Your task to perform on an android device: Open the map Image 0: 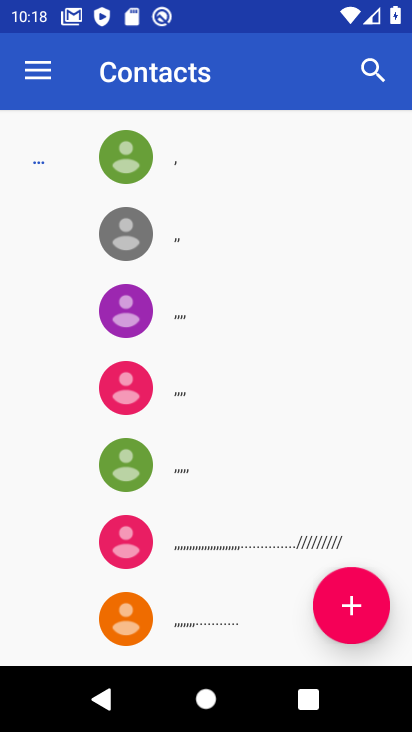
Step 0: press home button
Your task to perform on an android device: Open the map Image 1: 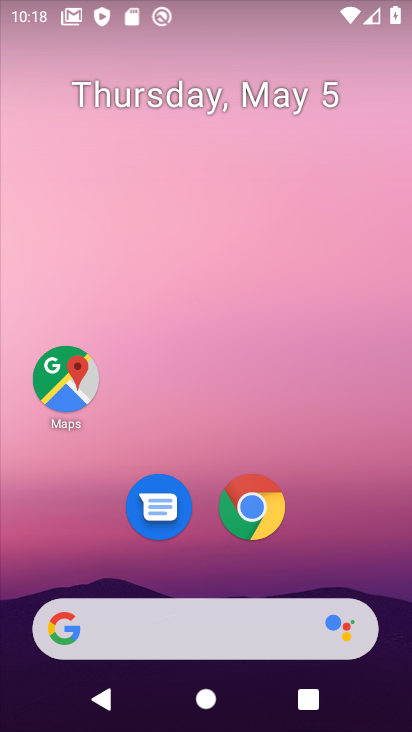
Step 1: click (66, 383)
Your task to perform on an android device: Open the map Image 2: 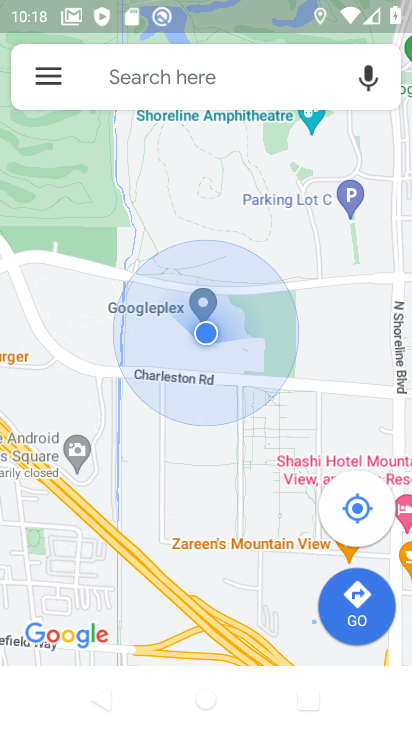
Step 2: task complete